Your task to perform on an android device: Open Google Maps and go to "Timeline" Image 0: 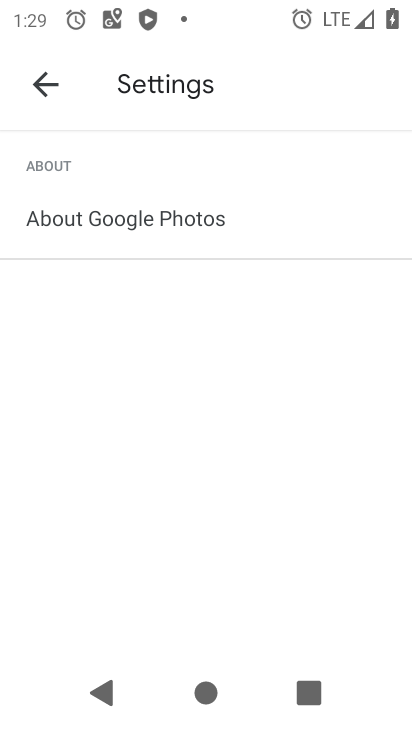
Step 0: press home button
Your task to perform on an android device: Open Google Maps and go to "Timeline" Image 1: 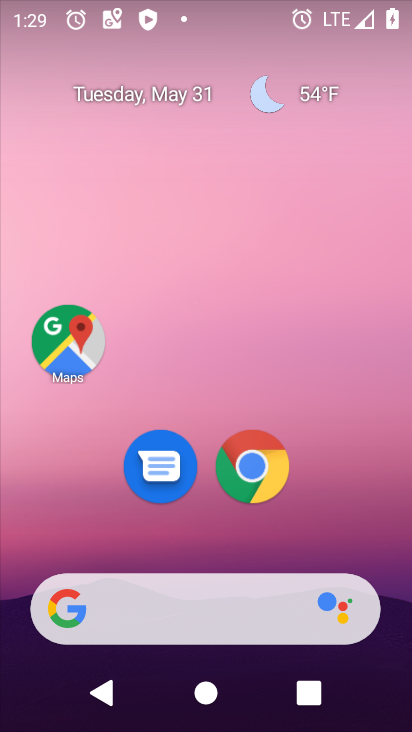
Step 1: click (76, 349)
Your task to perform on an android device: Open Google Maps and go to "Timeline" Image 2: 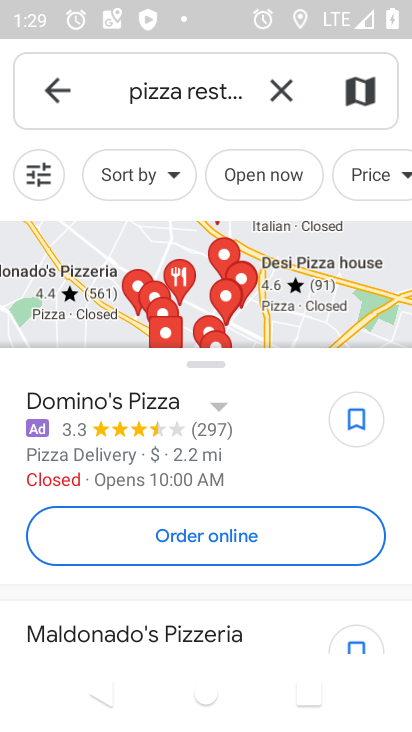
Step 2: click (62, 98)
Your task to perform on an android device: Open Google Maps and go to "Timeline" Image 3: 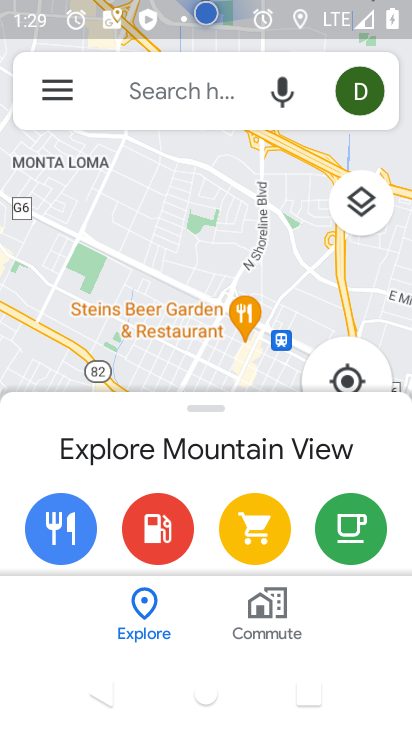
Step 3: click (62, 98)
Your task to perform on an android device: Open Google Maps and go to "Timeline" Image 4: 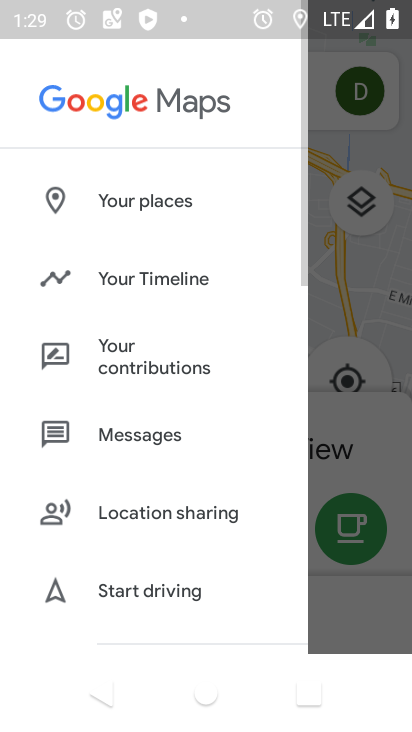
Step 4: click (169, 281)
Your task to perform on an android device: Open Google Maps and go to "Timeline" Image 5: 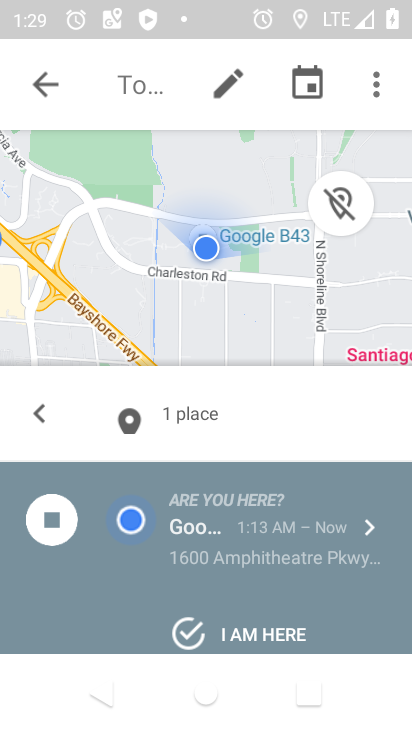
Step 5: task complete